Your task to perform on an android device: show emergency info Image 0: 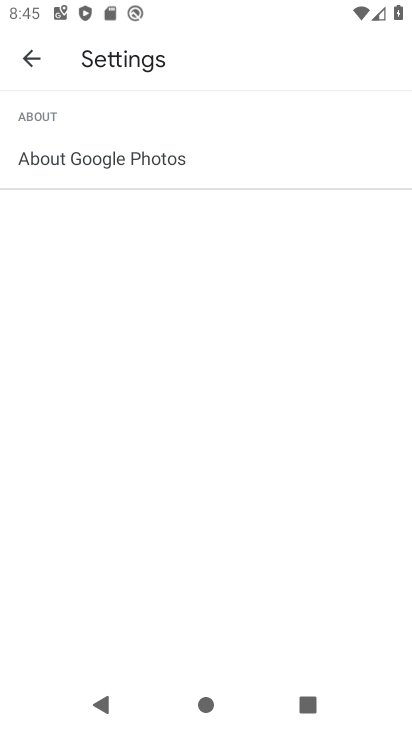
Step 0: press home button
Your task to perform on an android device: show emergency info Image 1: 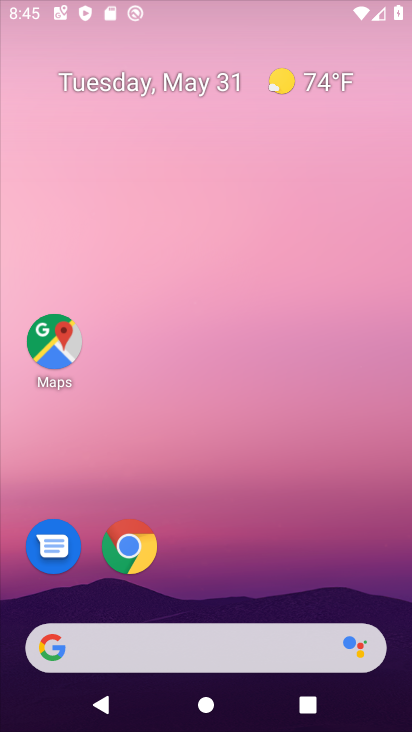
Step 1: drag from (277, 570) to (318, 40)
Your task to perform on an android device: show emergency info Image 2: 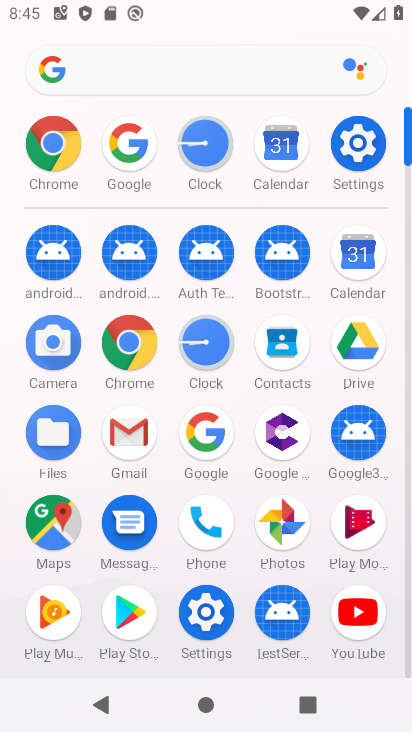
Step 2: click (363, 144)
Your task to perform on an android device: show emergency info Image 3: 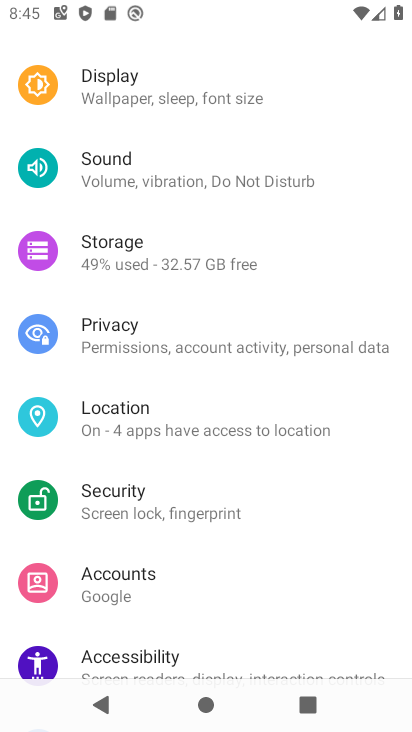
Step 3: drag from (263, 558) to (322, 23)
Your task to perform on an android device: show emergency info Image 4: 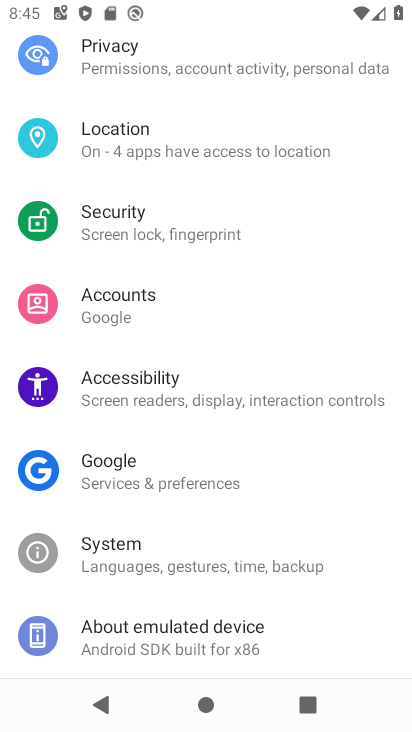
Step 4: click (157, 647)
Your task to perform on an android device: show emergency info Image 5: 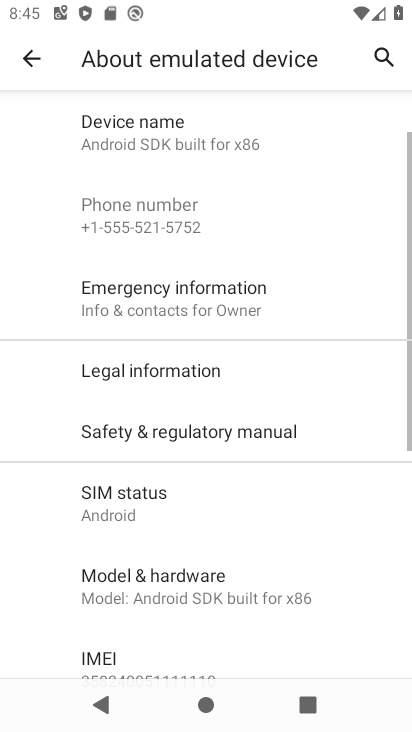
Step 5: click (168, 292)
Your task to perform on an android device: show emergency info Image 6: 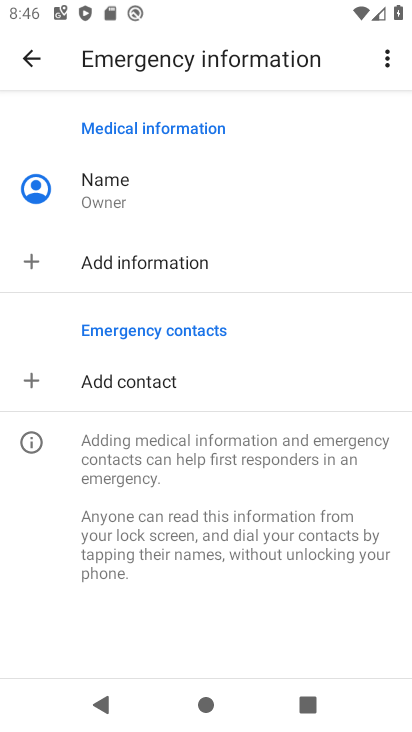
Step 6: task complete